Your task to perform on an android device: allow notifications from all sites in the chrome app Image 0: 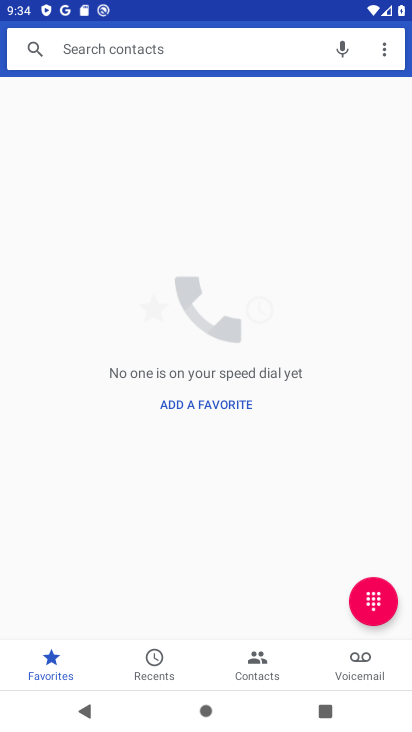
Step 0: press home button
Your task to perform on an android device: allow notifications from all sites in the chrome app Image 1: 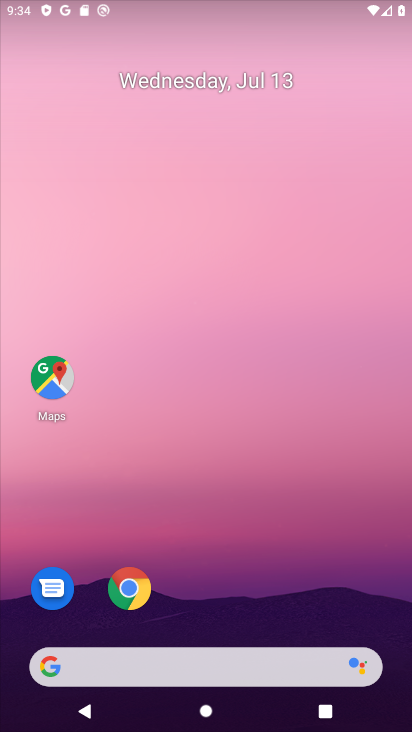
Step 1: drag from (233, 496) to (237, 165)
Your task to perform on an android device: allow notifications from all sites in the chrome app Image 2: 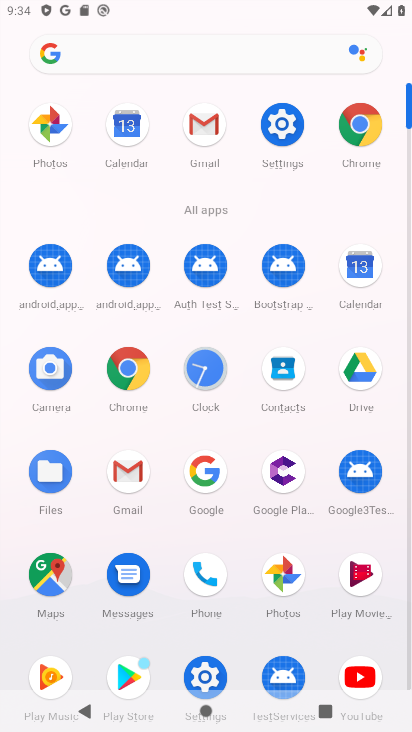
Step 2: click (125, 370)
Your task to perform on an android device: allow notifications from all sites in the chrome app Image 3: 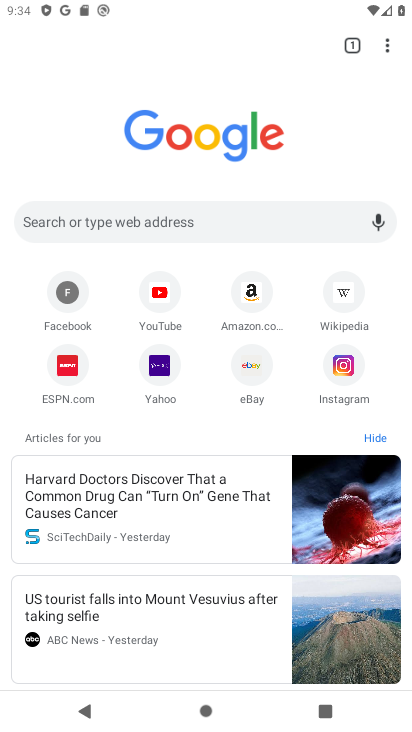
Step 3: click (386, 40)
Your task to perform on an android device: allow notifications from all sites in the chrome app Image 4: 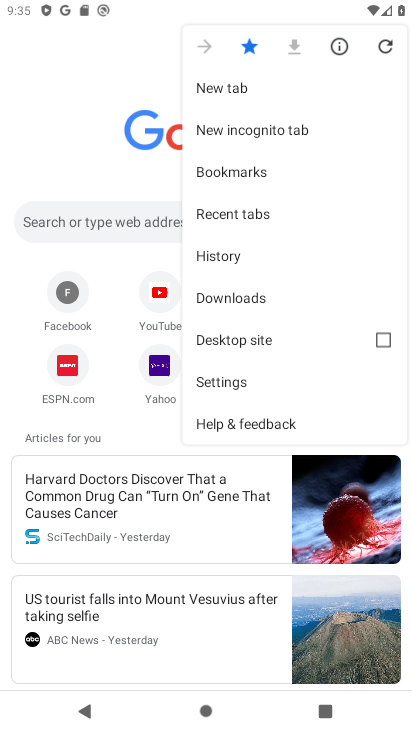
Step 4: click (235, 375)
Your task to perform on an android device: allow notifications from all sites in the chrome app Image 5: 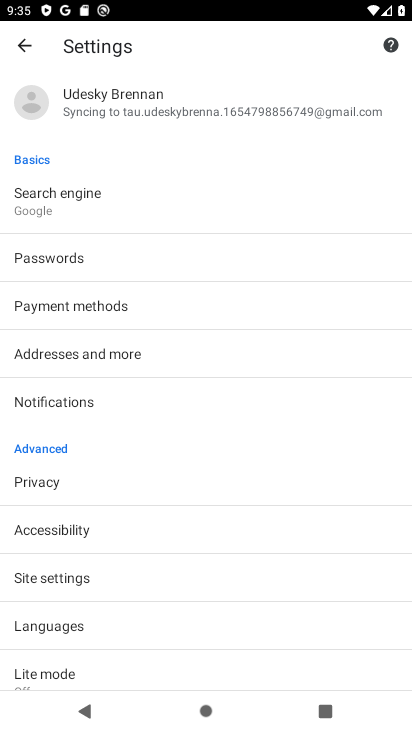
Step 5: click (60, 584)
Your task to perform on an android device: allow notifications from all sites in the chrome app Image 6: 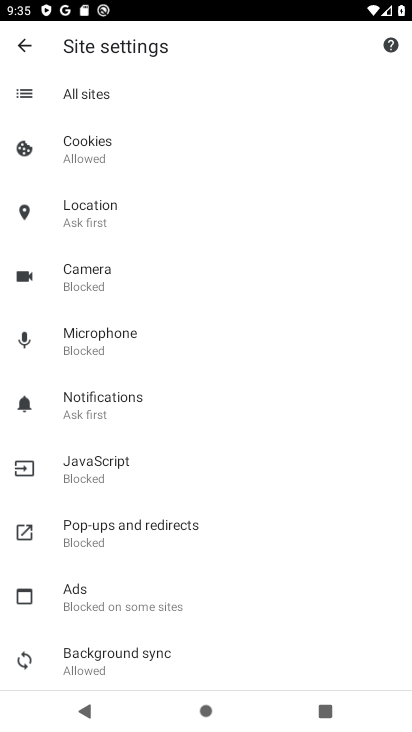
Step 6: click (111, 398)
Your task to perform on an android device: allow notifications from all sites in the chrome app Image 7: 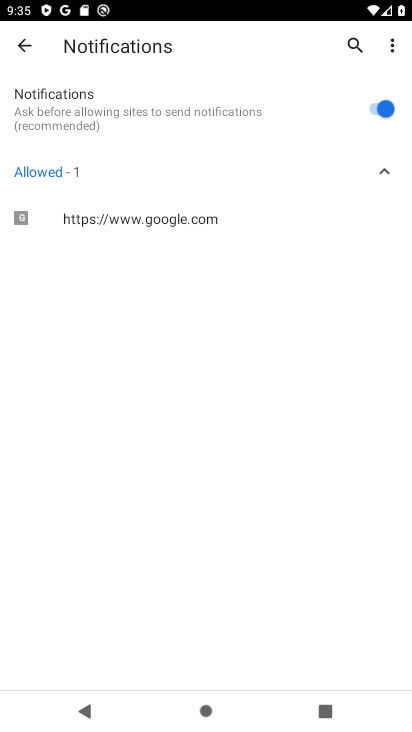
Step 7: task complete